Your task to perform on an android device: turn on priority inbox in the gmail app Image 0: 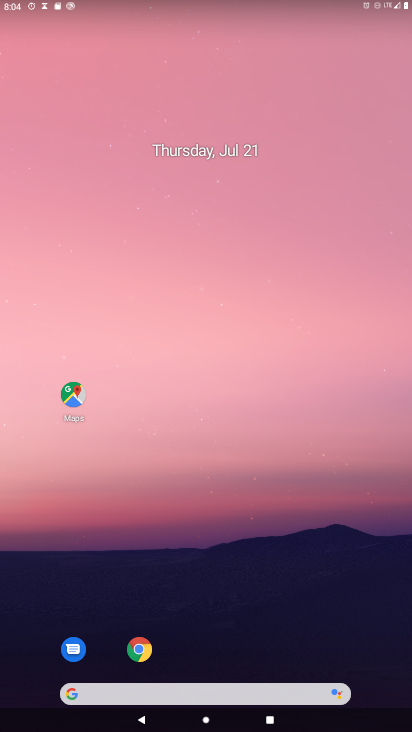
Step 0: drag from (362, 620) to (189, 38)
Your task to perform on an android device: turn on priority inbox in the gmail app Image 1: 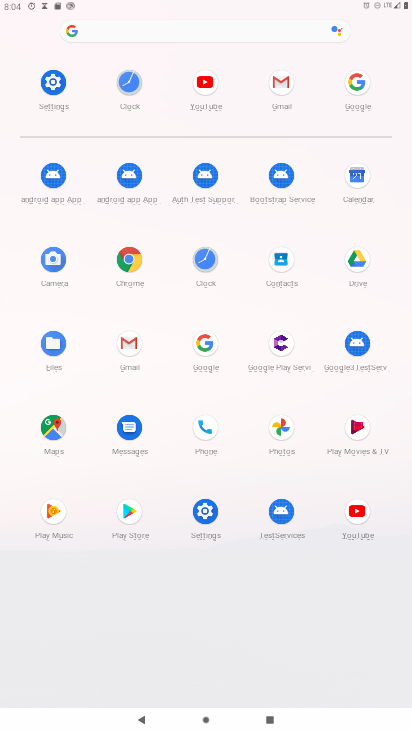
Step 1: click (131, 344)
Your task to perform on an android device: turn on priority inbox in the gmail app Image 2: 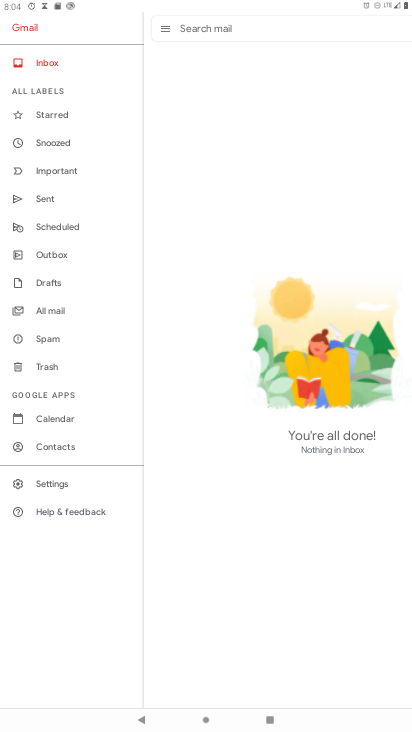
Step 2: click (48, 478)
Your task to perform on an android device: turn on priority inbox in the gmail app Image 3: 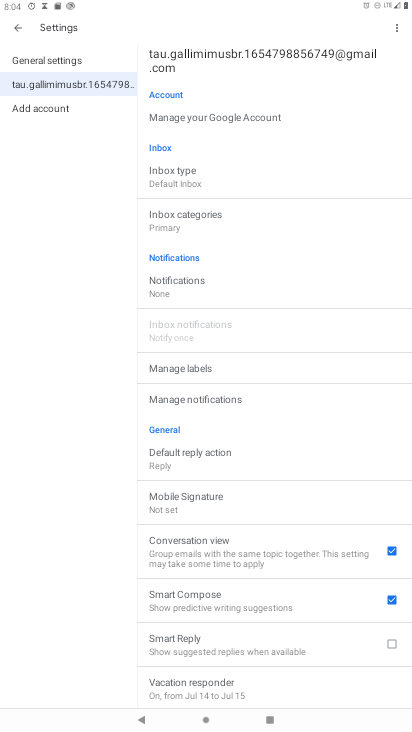
Step 3: click (210, 173)
Your task to perform on an android device: turn on priority inbox in the gmail app Image 4: 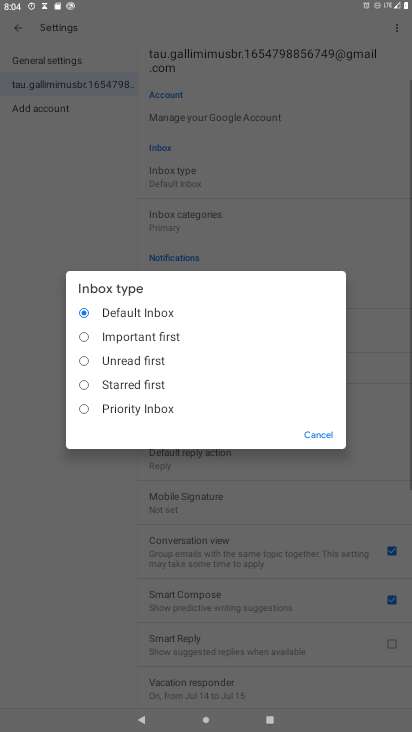
Step 4: click (115, 412)
Your task to perform on an android device: turn on priority inbox in the gmail app Image 5: 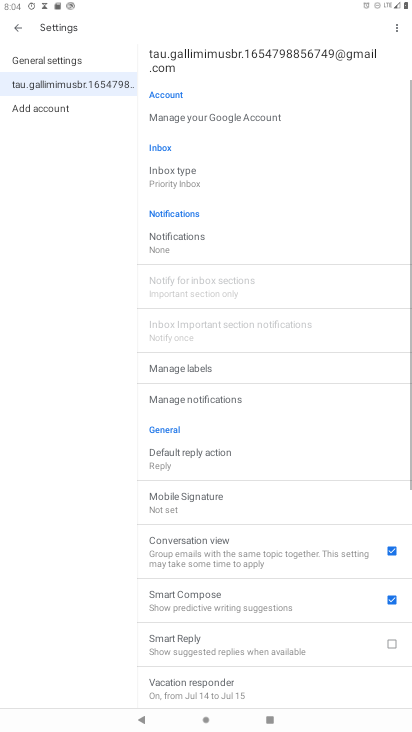
Step 5: task complete